Your task to perform on an android device: open sync settings in chrome Image 0: 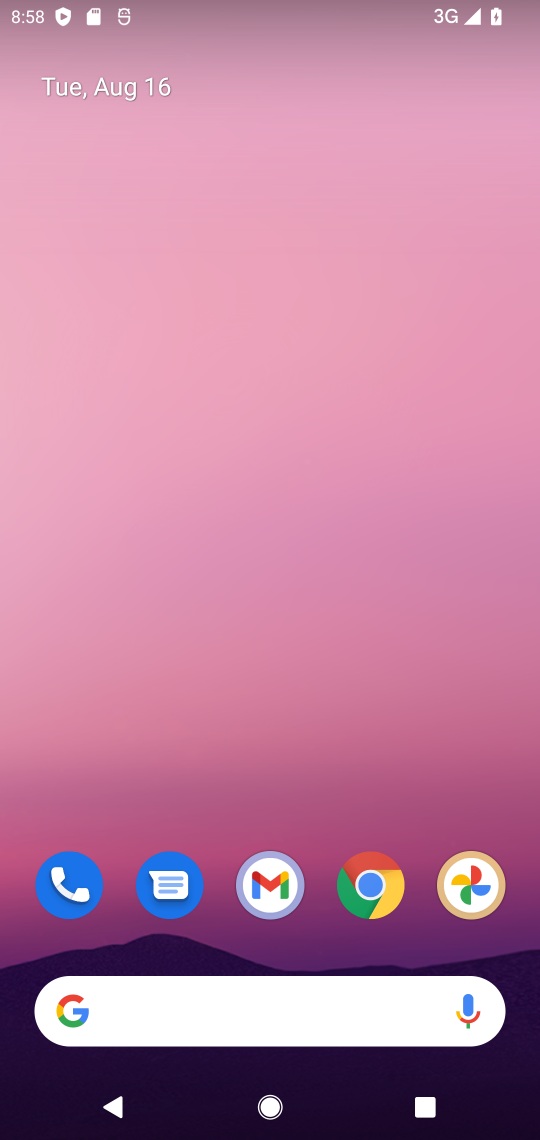
Step 0: click (381, 890)
Your task to perform on an android device: open sync settings in chrome Image 1: 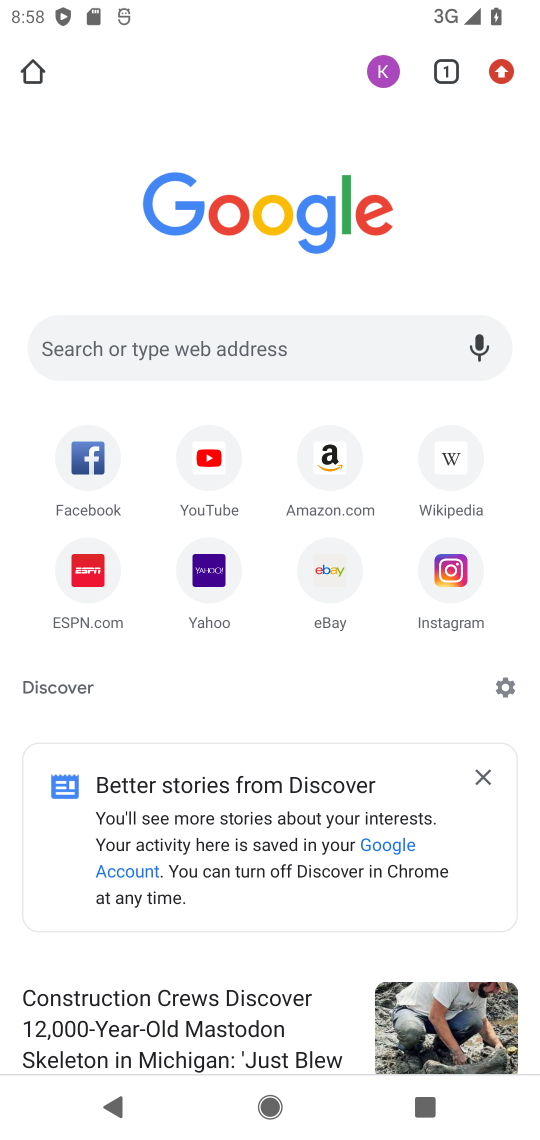
Step 1: click (497, 71)
Your task to perform on an android device: open sync settings in chrome Image 2: 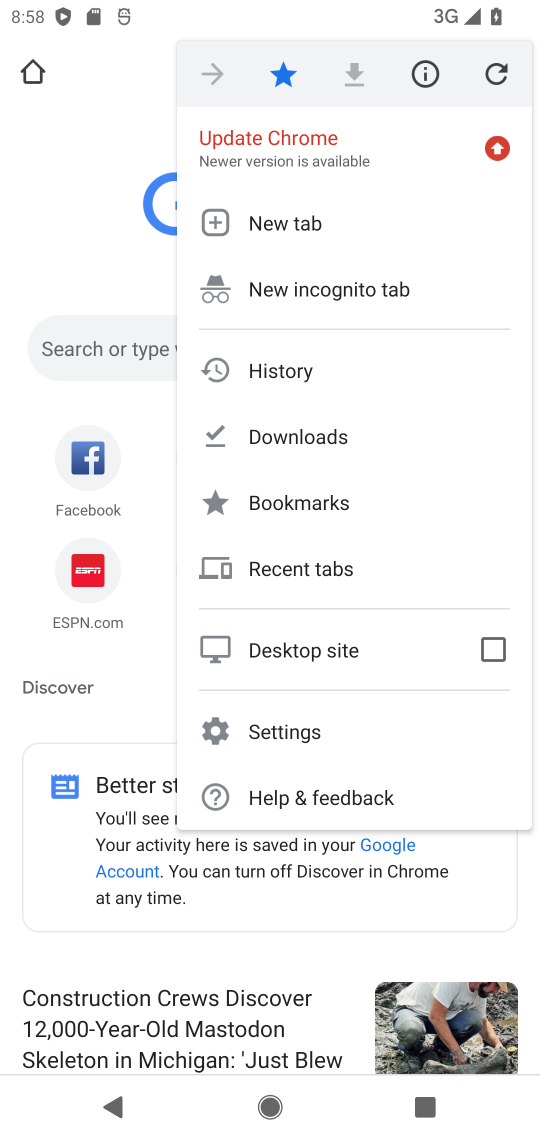
Step 2: click (268, 734)
Your task to perform on an android device: open sync settings in chrome Image 3: 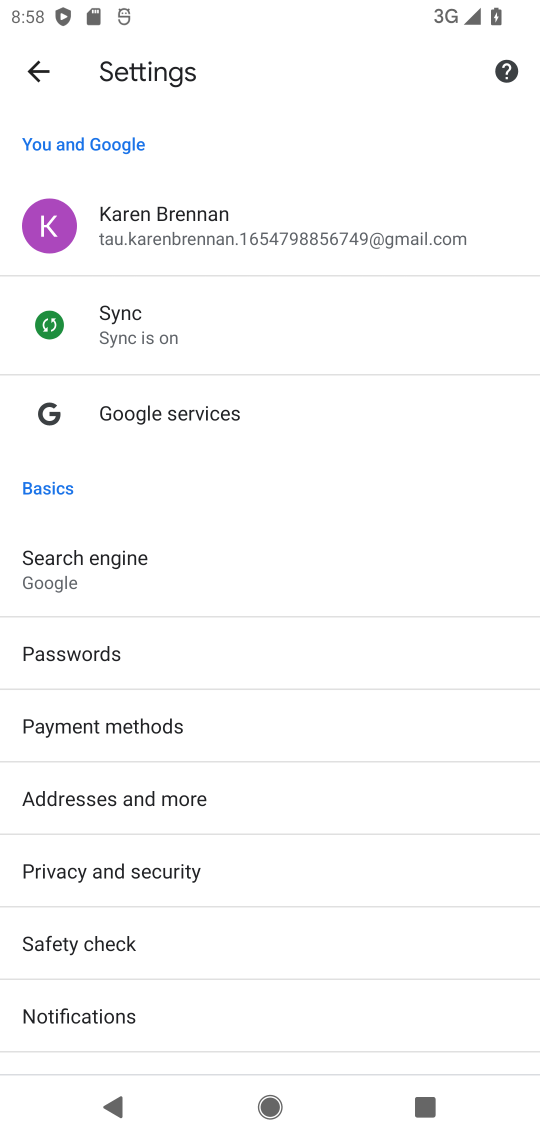
Step 3: click (145, 319)
Your task to perform on an android device: open sync settings in chrome Image 4: 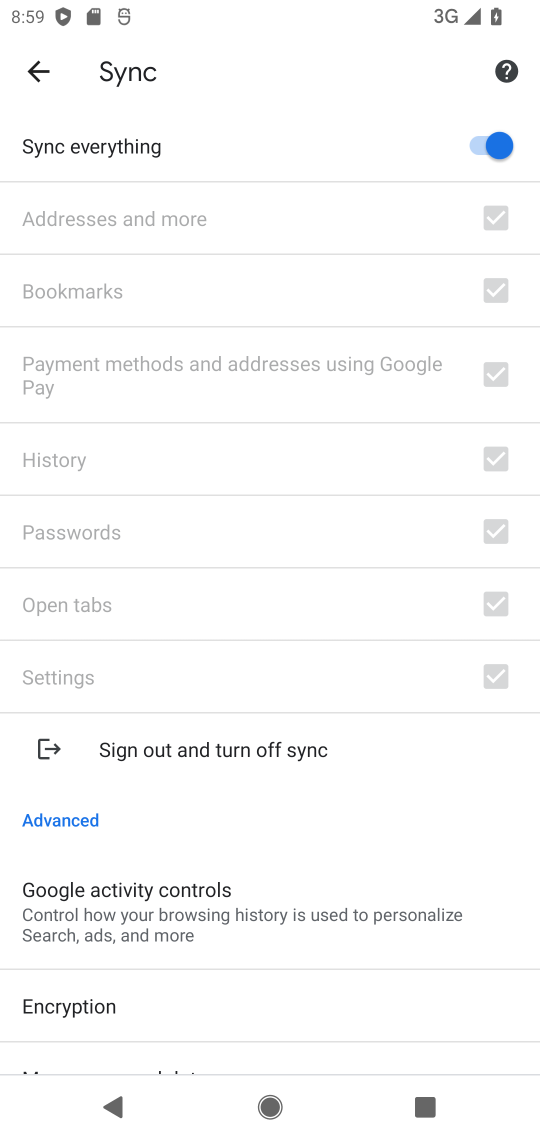
Step 4: task complete